Your task to perform on an android device: What's the weather today? Image 0: 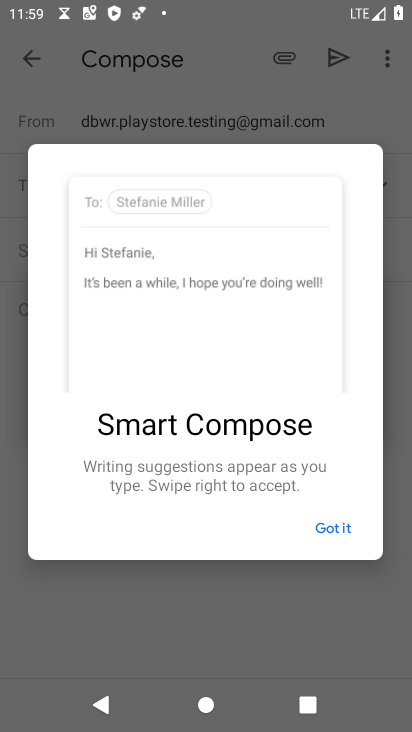
Step 0: press home button
Your task to perform on an android device: What's the weather today? Image 1: 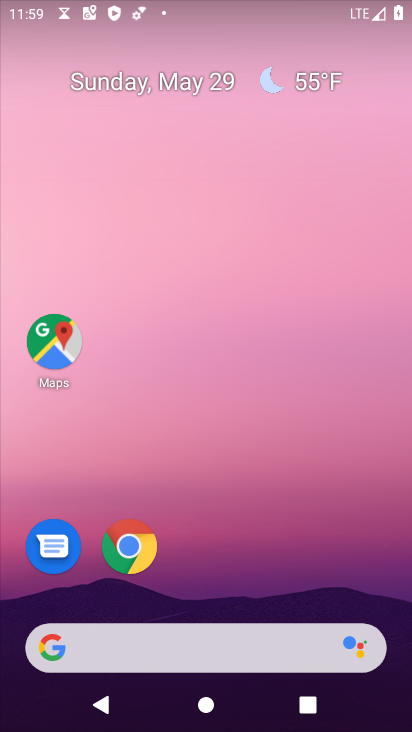
Step 1: drag from (173, 484) to (267, 76)
Your task to perform on an android device: What's the weather today? Image 2: 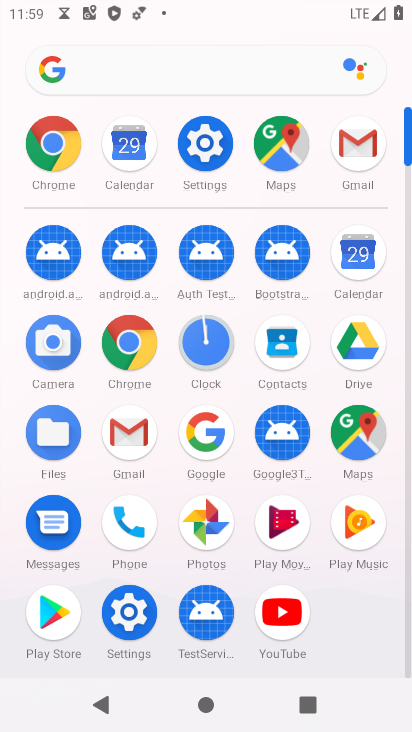
Step 2: click (214, 435)
Your task to perform on an android device: What's the weather today? Image 3: 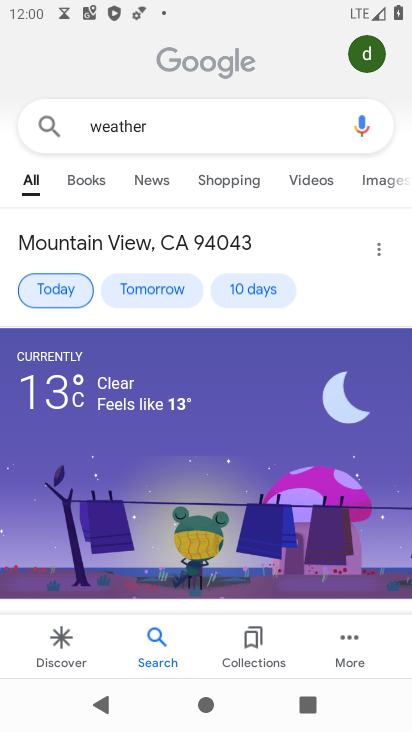
Step 3: task complete